Your task to perform on an android device: Go to accessibility settings Image 0: 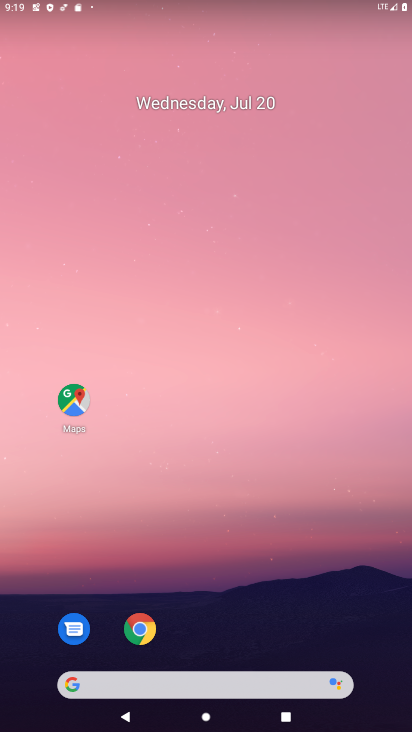
Step 0: drag from (212, 621) to (235, 87)
Your task to perform on an android device: Go to accessibility settings Image 1: 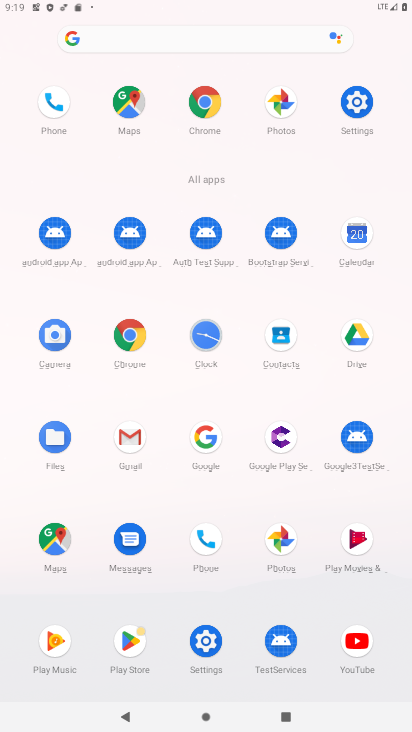
Step 1: click (356, 104)
Your task to perform on an android device: Go to accessibility settings Image 2: 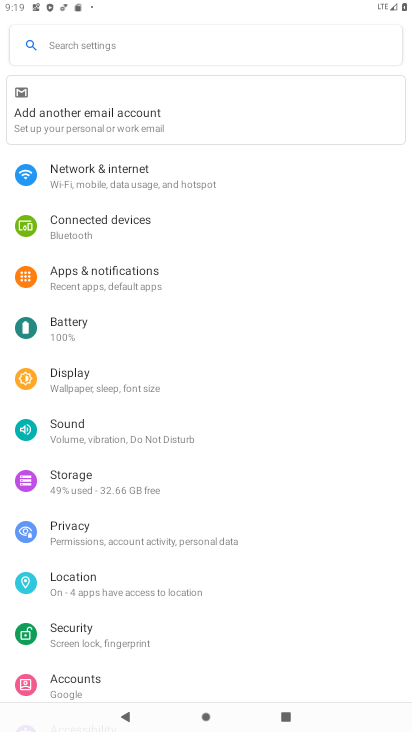
Step 2: drag from (177, 553) to (198, 191)
Your task to perform on an android device: Go to accessibility settings Image 3: 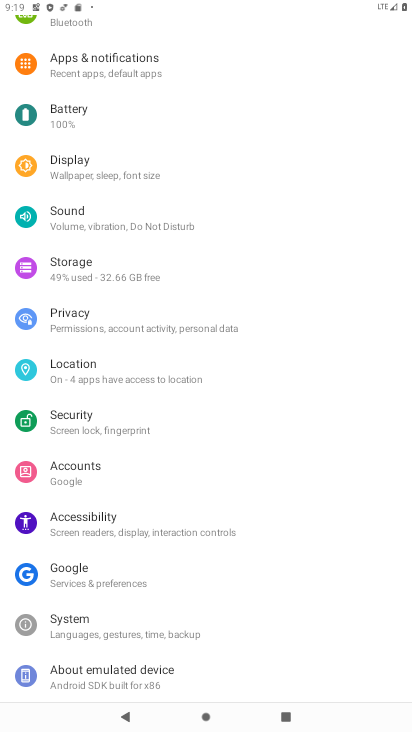
Step 3: click (44, 528)
Your task to perform on an android device: Go to accessibility settings Image 4: 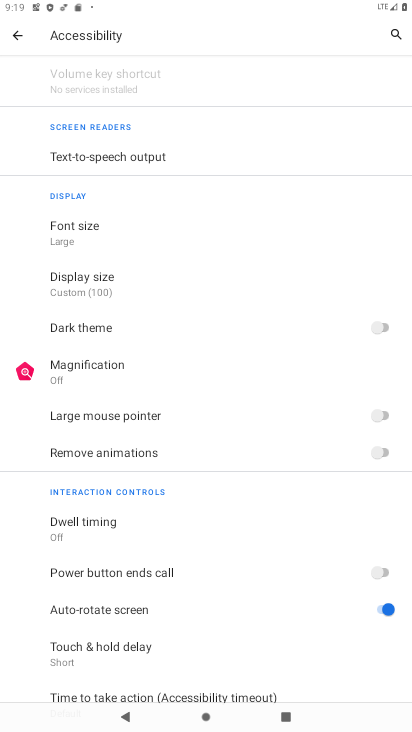
Step 4: task complete